Your task to perform on an android device: Go to notification settings Image 0: 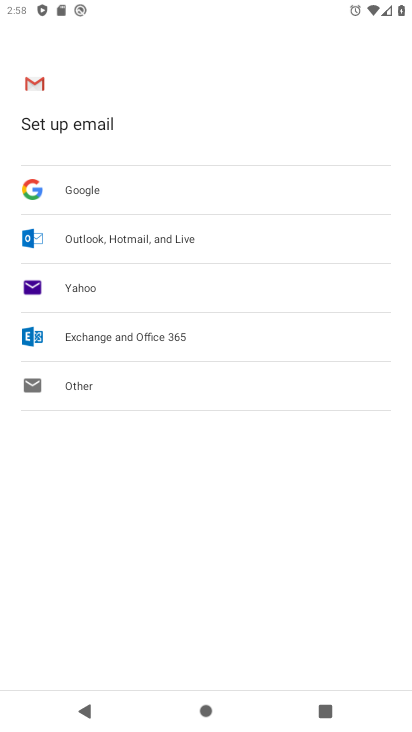
Step 0: press home button
Your task to perform on an android device: Go to notification settings Image 1: 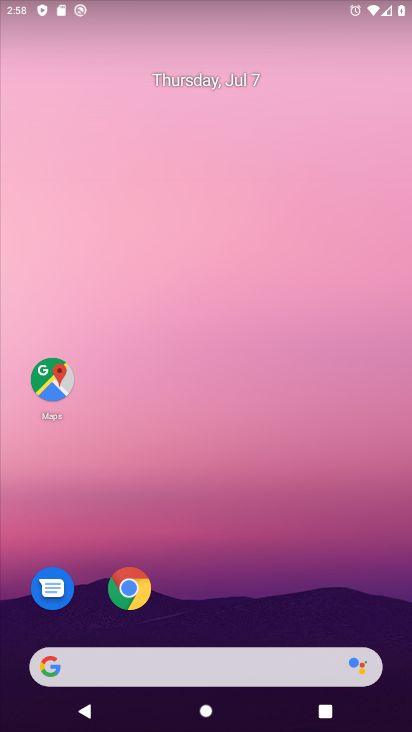
Step 1: drag from (175, 671) to (184, 138)
Your task to perform on an android device: Go to notification settings Image 2: 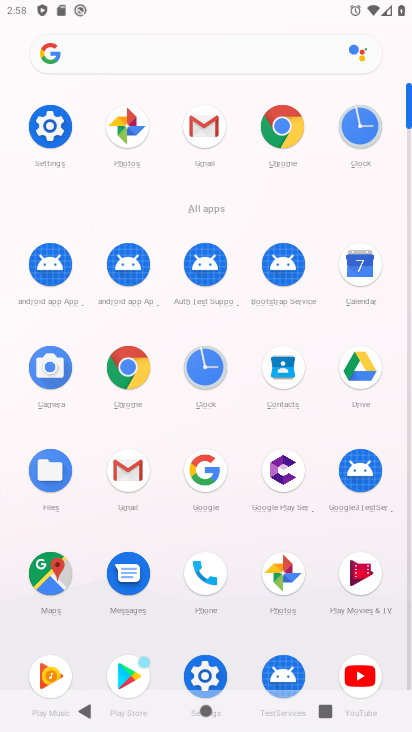
Step 2: click (55, 124)
Your task to perform on an android device: Go to notification settings Image 3: 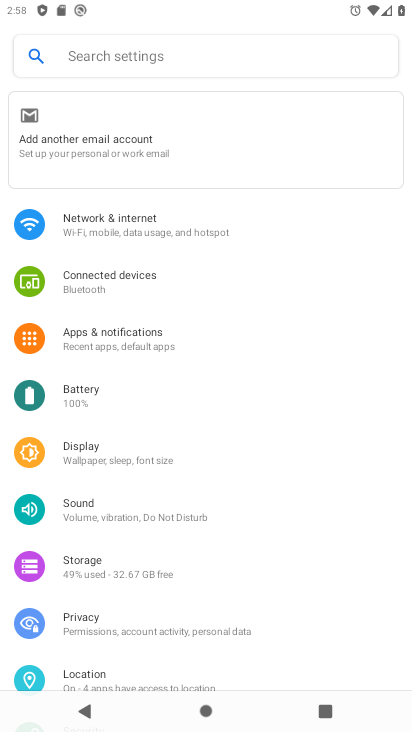
Step 3: click (141, 338)
Your task to perform on an android device: Go to notification settings Image 4: 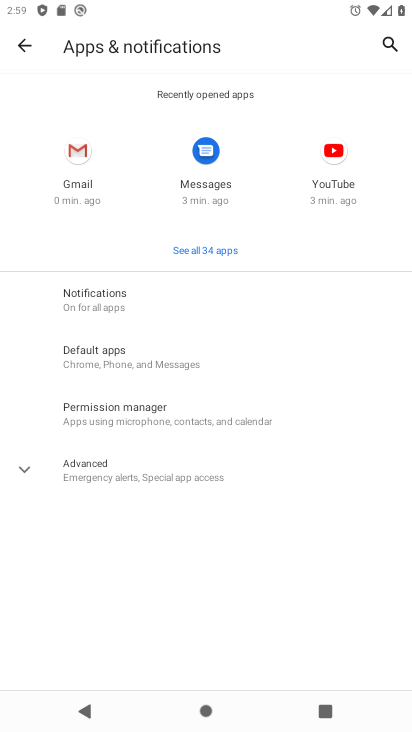
Step 4: click (93, 475)
Your task to perform on an android device: Go to notification settings Image 5: 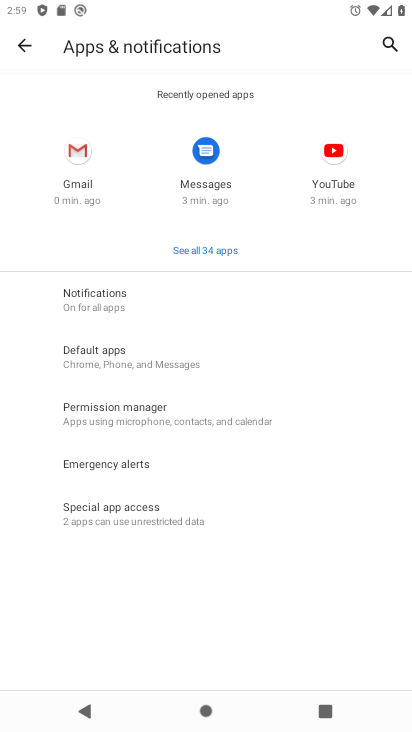
Step 5: task complete